Your task to perform on an android device: check google app version Image 0: 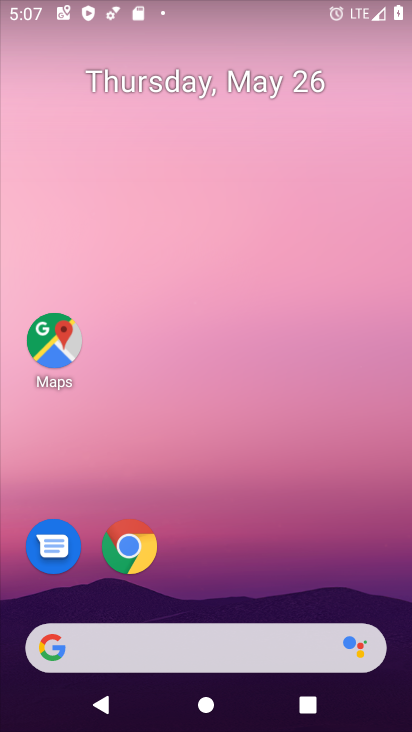
Step 0: drag from (275, 490) to (361, 98)
Your task to perform on an android device: check google app version Image 1: 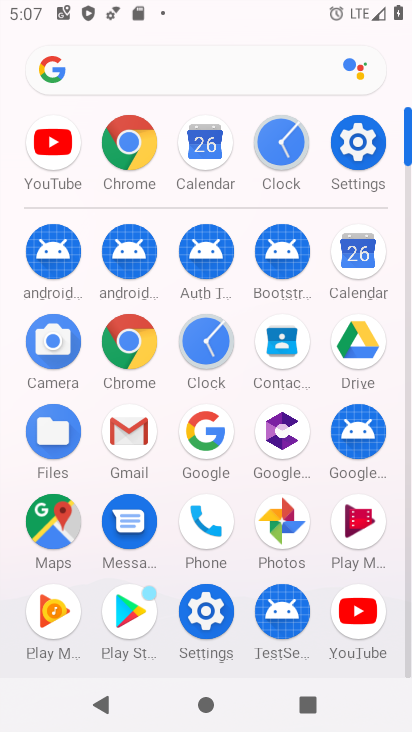
Step 1: click (207, 438)
Your task to perform on an android device: check google app version Image 2: 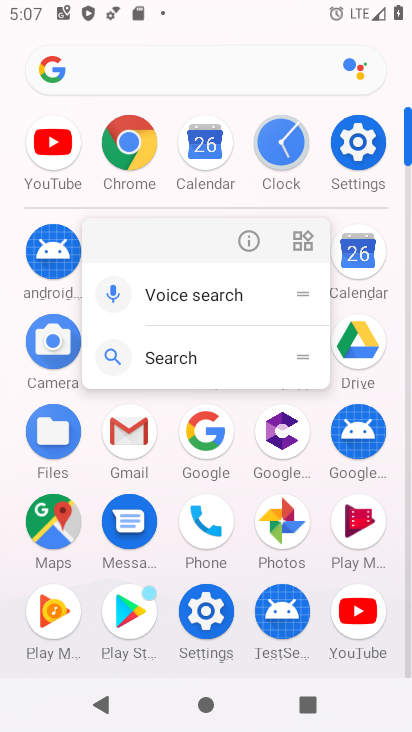
Step 2: click (254, 238)
Your task to perform on an android device: check google app version Image 3: 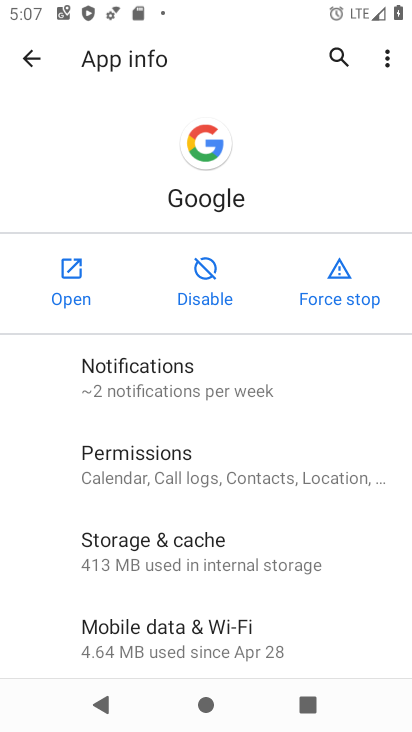
Step 3: drag from (203, 561) to (263, 157)
Your task to perform on an android device: check google app version Image 4: 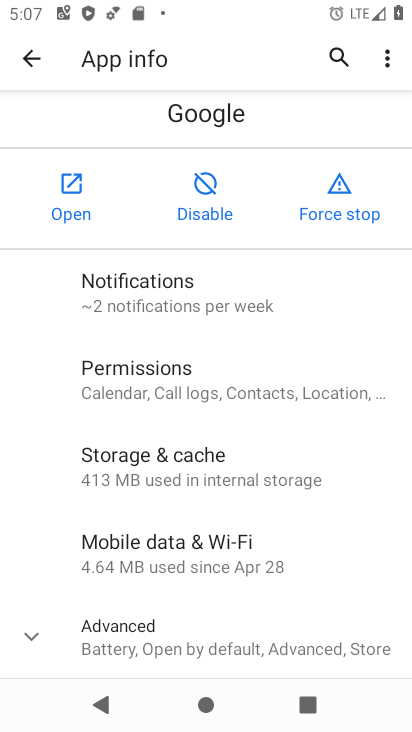
Step 4: drag from (189, 600) to (236, 280)
Your task to perform on an android device: check google app version Image 5: 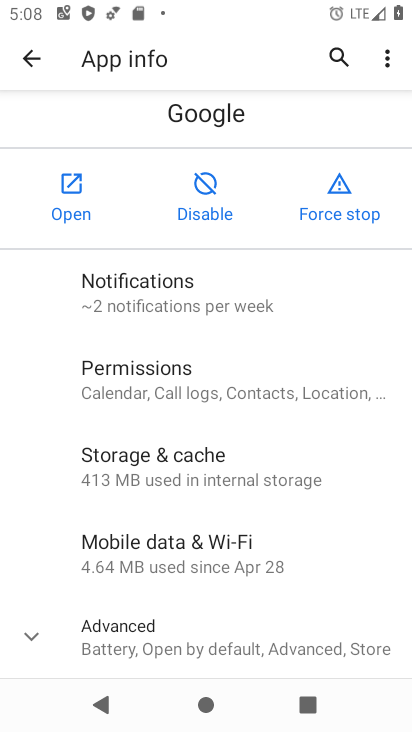
Step 5: drag from (231, 620) to (257, 107)
Your task to perform on an android device: check google app version Image 6: 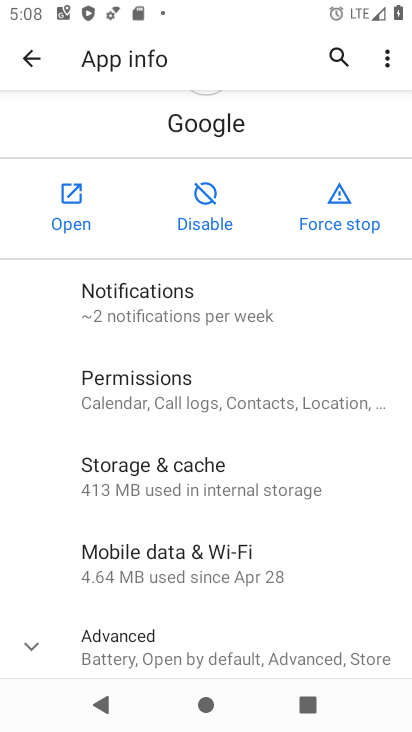
Step 6: click (186, 645)
Your task to perform on an android device: check google app version Image 7: 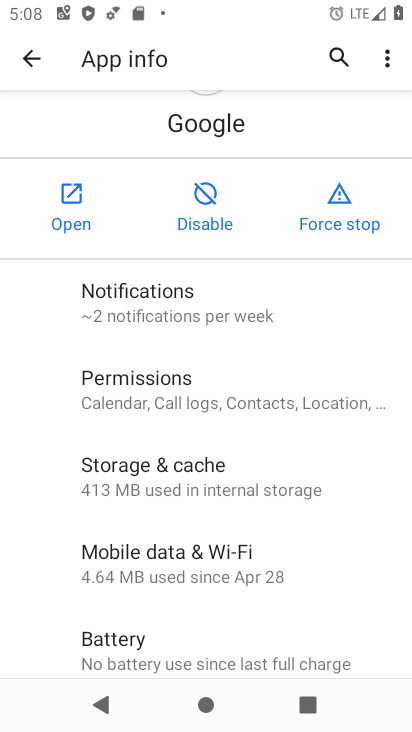
Step 7: task complete